Your task to perform on an android device: Is it going to rain this weekend? Image 0: 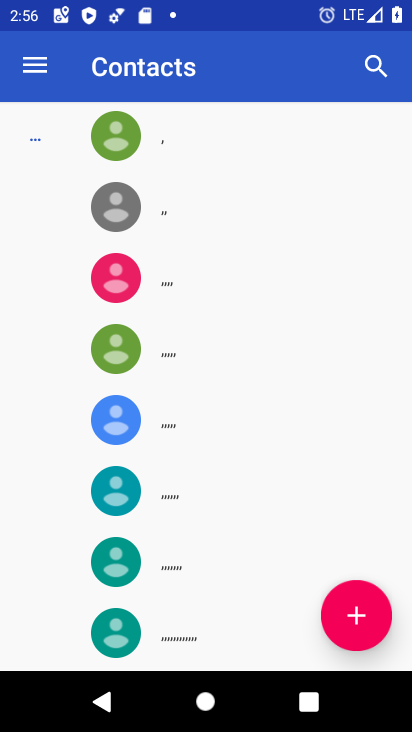
Step 0: press home button
Your task to perform on an android device: Is it going to rain this weekend? Image 1: 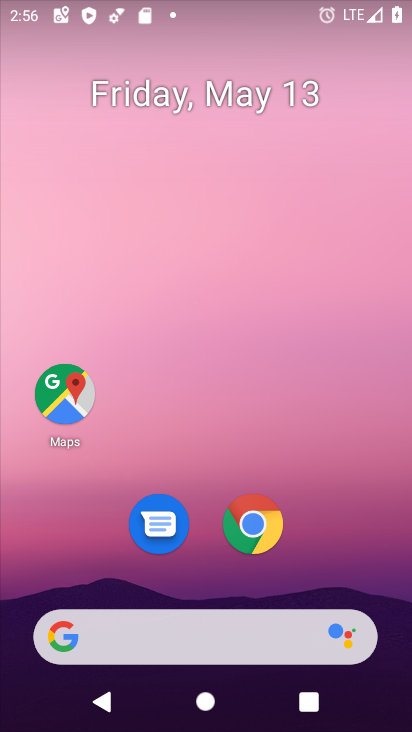
Step 1: click (197, 628)
Your task to perform on an android device: Is it going to rain this weekend? Image 2: 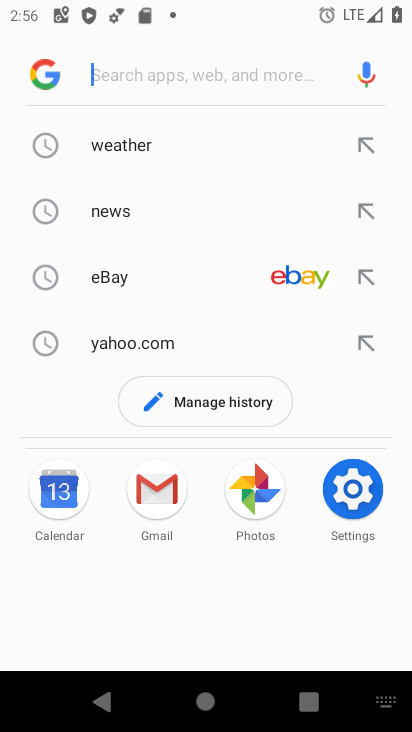
Step 2: click (49, 72)
Your task to perform on an android device: Is it going to rain this weekend? Image 3: 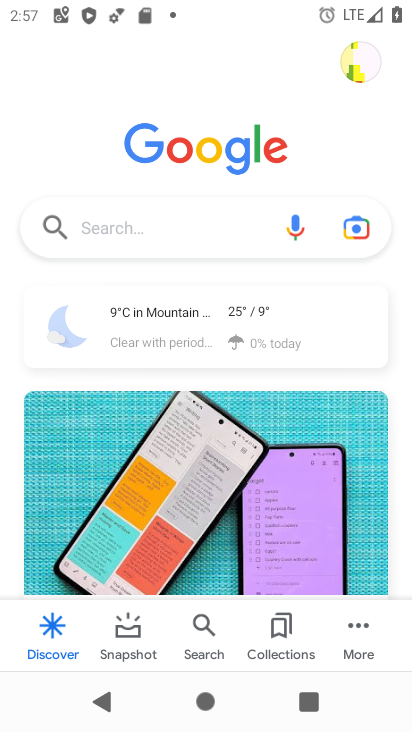
Step 3: click (244, 325)
Your task to perform on an android device: Is it going to rain this weekend? Image 4: 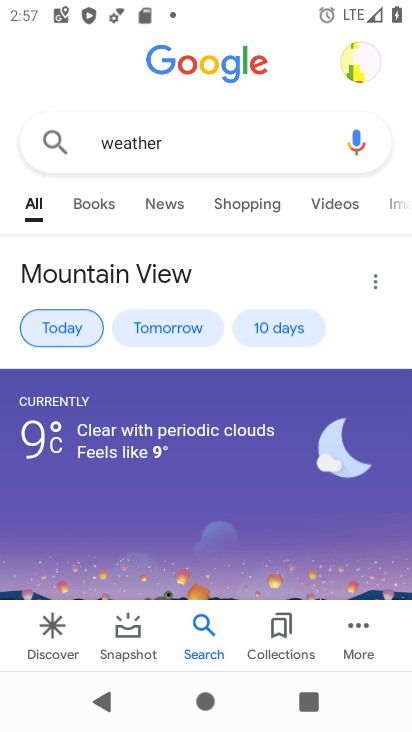
Step 4: click (76, 332)
Your task to perform on an android device: Is it going to rain this weekend? Image 5: 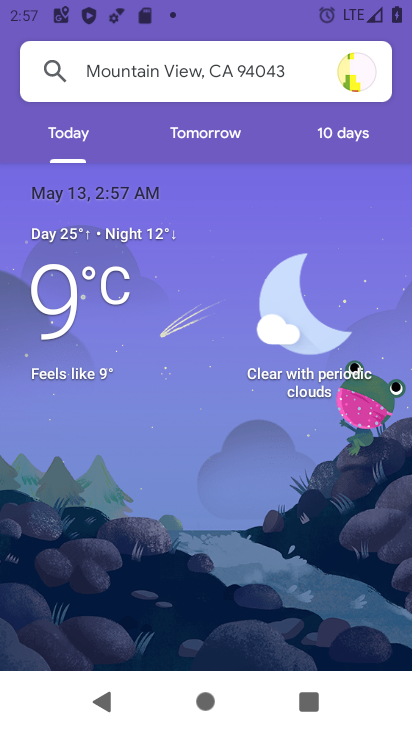
Step 5: click (336, 131)
Your task to perform on an android device: Is it going to rain this weekend? Image 6: 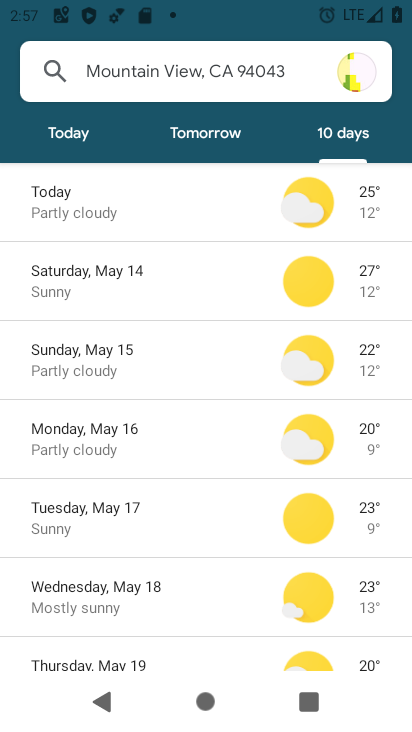
Step 6: click (159, 279)
Your task to perform on an android device: Is it going to rain this weekend? Image 7: 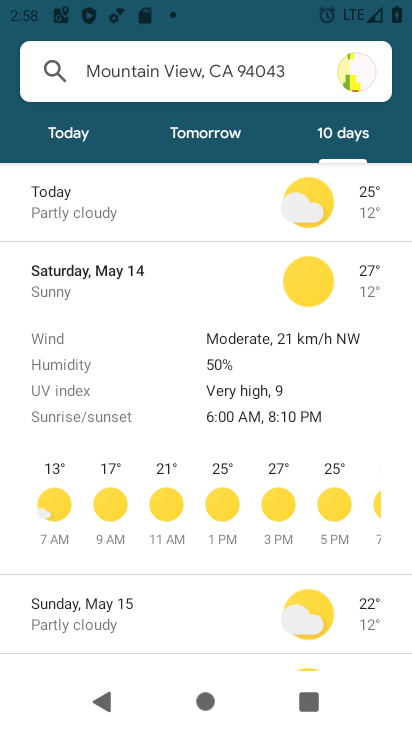
Step 7: task complete